Your task to perform on an android device: delete a single message in the gmail app Image 0: 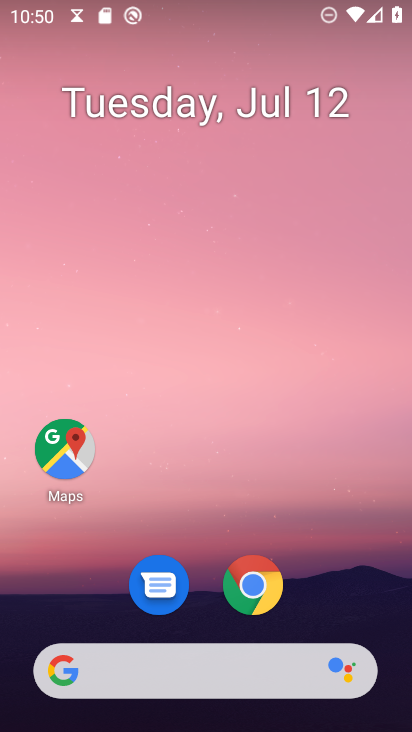
Step 0: drag from (192, 684) to (220, 62)
Your task to perform on an android device: delete a single message in the gmail app Image 1: 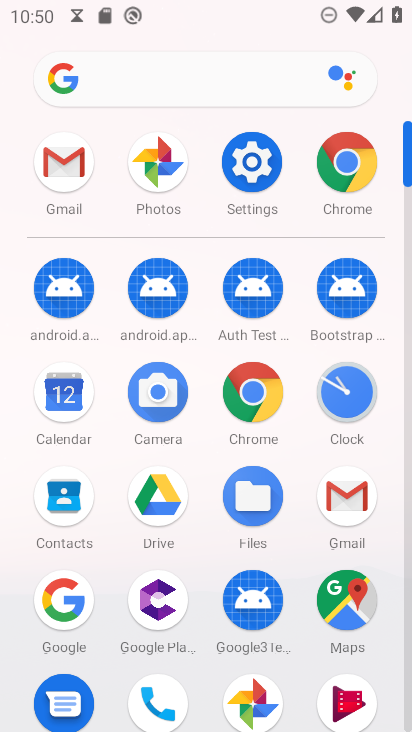
Step 1: click (75, 167)
Your task to perform on an android device: delete a single message in the gmail app Image 2: 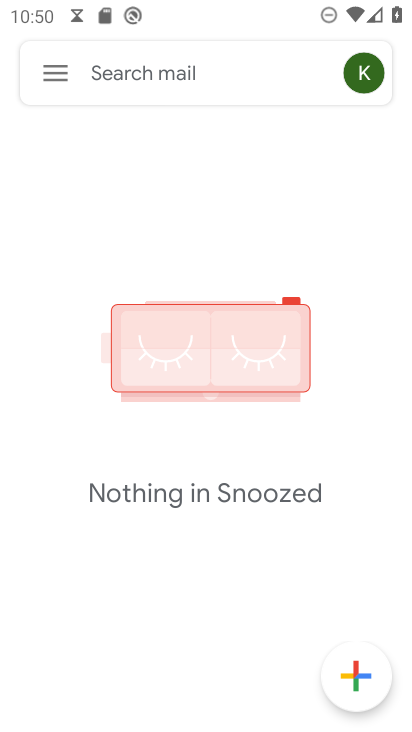
Step 2: click (55, 76)
Your task to perform on an android device: delete a single message in the gmail app Image 3: 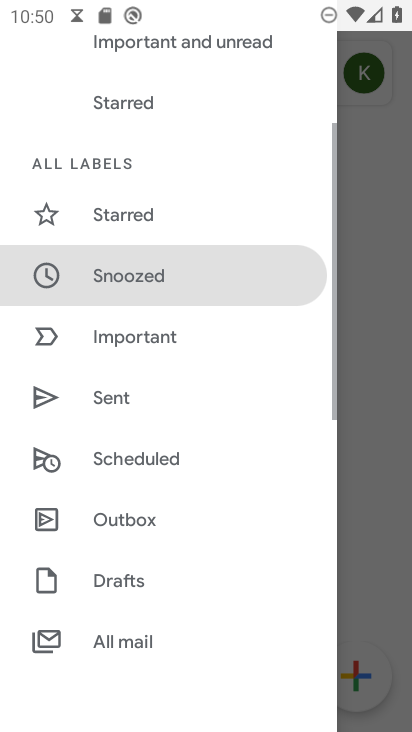
Step 3: drag from (211, 145) to (259, 729)
Your task to perform on an android device: delete a single message in the gmail app Image 4: 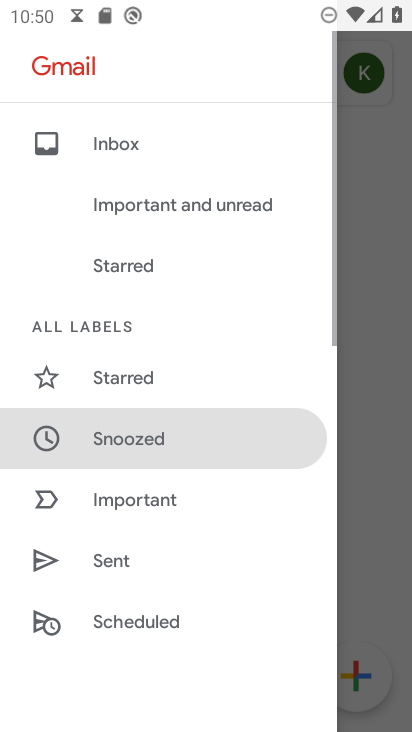
Step 4: click (121, 140)
Your task to perform on an android device: delete a single message in the gmail app Image 5: 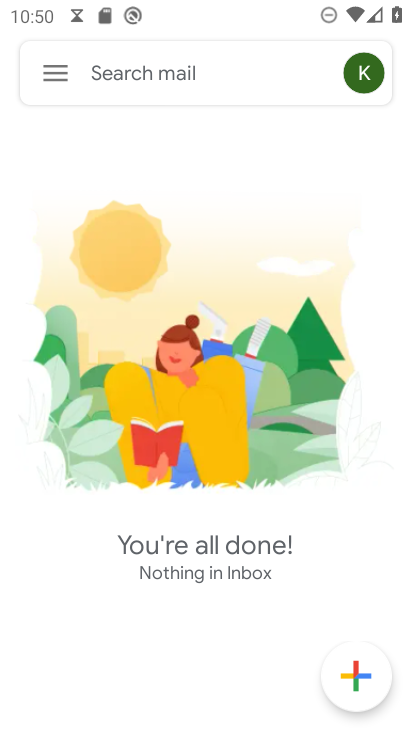
Step 5: task complete